Your task to perform on an android device: Open location settings Image 0: 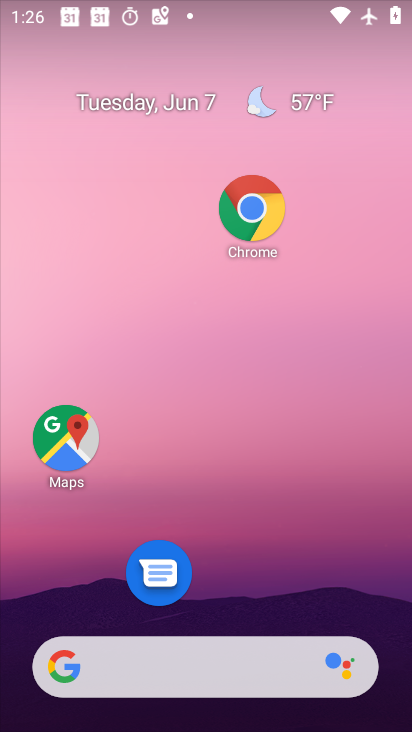
Step 0: drag from (219, 591) to (180, 143)
Your task to perform on an android device: Open location settings Image 1: 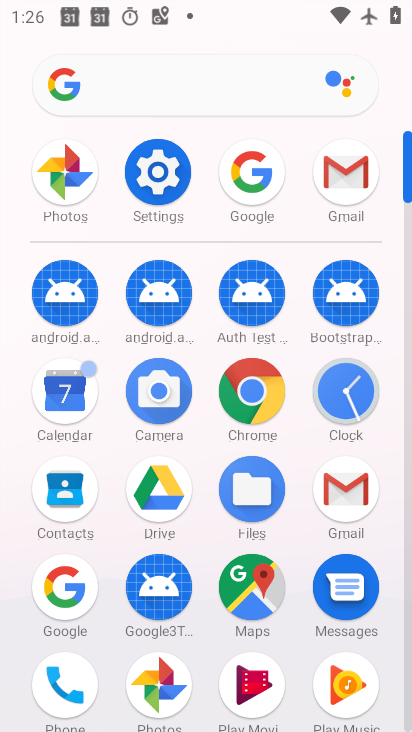
Step 1: click (180, 162)
Your task to perform on an android device: Open location settings Image 2: 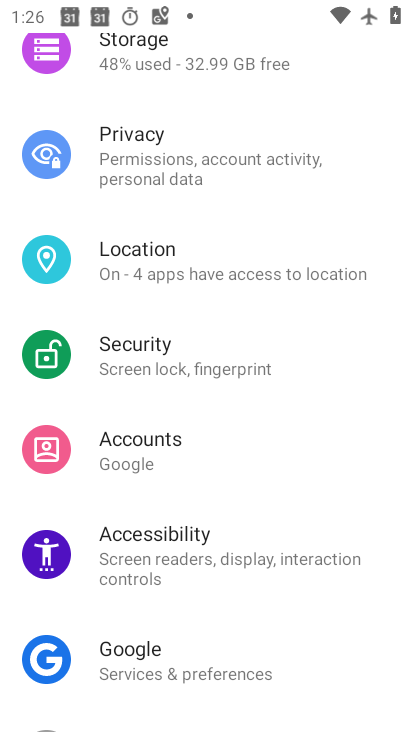
Step 2: click (172, 276)
Your task to perform on an android device: Open location settings Image 3: 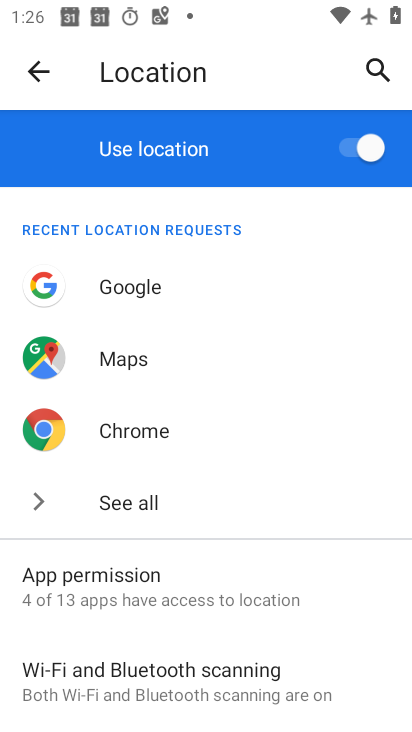
Step 3: task complete